Your task to perform on an android device: all mails in gmail Image 0: 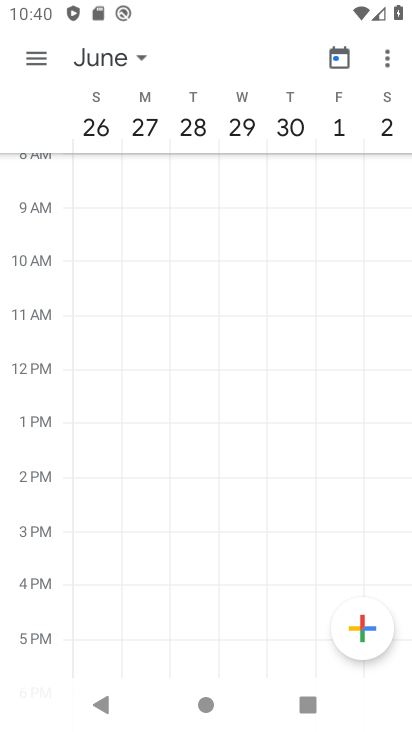
Step 0: press home button
Your task to perform on an android device: all mails in gmail Image 1: 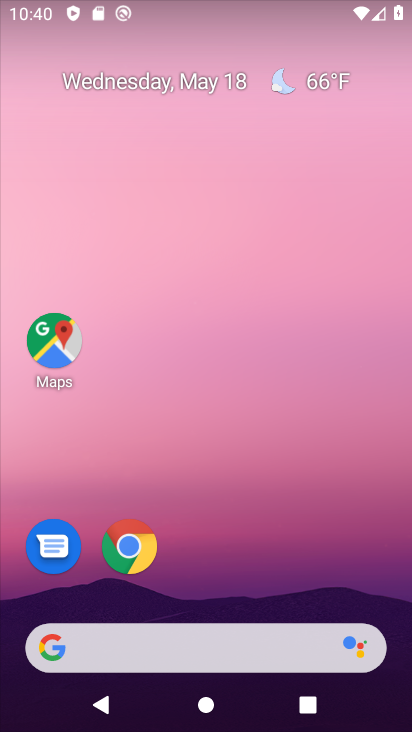
Step 1: drag from (234, 727) to (234, 107)
Your task to perform on an android device: all mails in gmail Image 2: 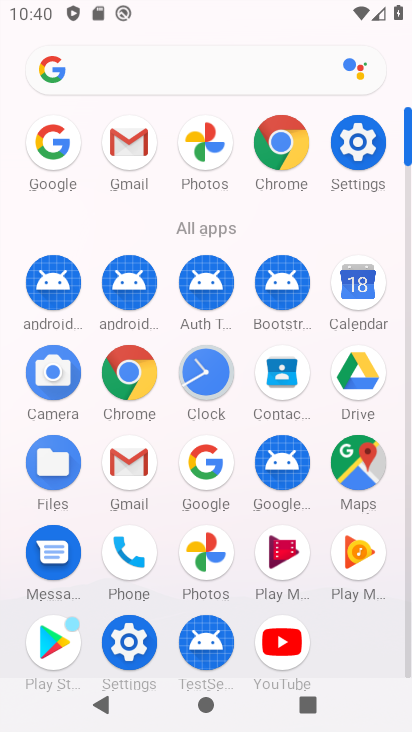
Step 2: click (136, 457)
Your task to perform on an android device: all mails in gmail Image 3: 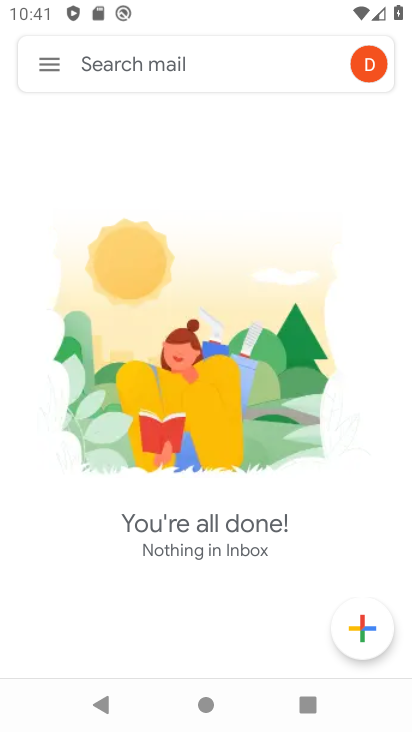
Step 3: click (43, 68)
Your task to perform on an android device: all mails in gmail Image 4: 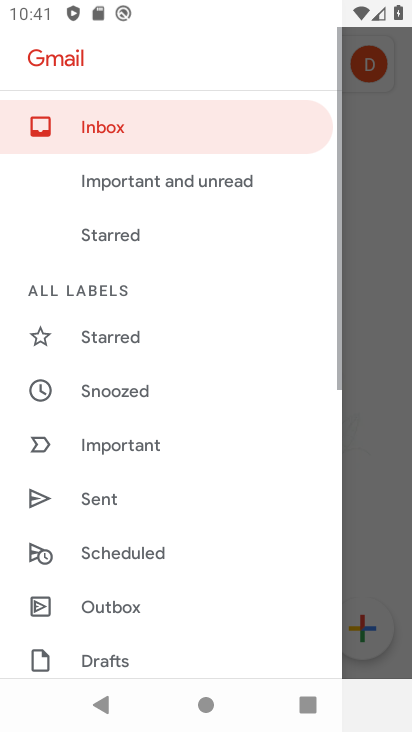
Step 4: click (147, 141)
Your task to perform on an android device: all mails in gmail Image 5: 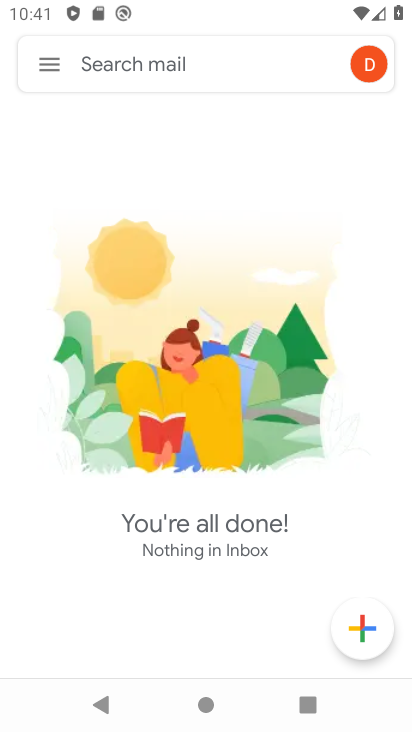
Step 5: click (48, 70)
Your task to perform on an android device: all mails in gmail Image 6: 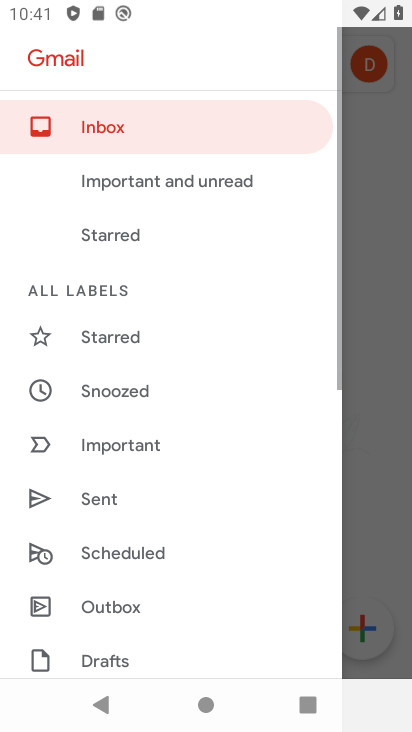
Step 6: drag from (143, 618) to (152, 224)
Your task to perform on an android device: all mails in gmail Image 7: 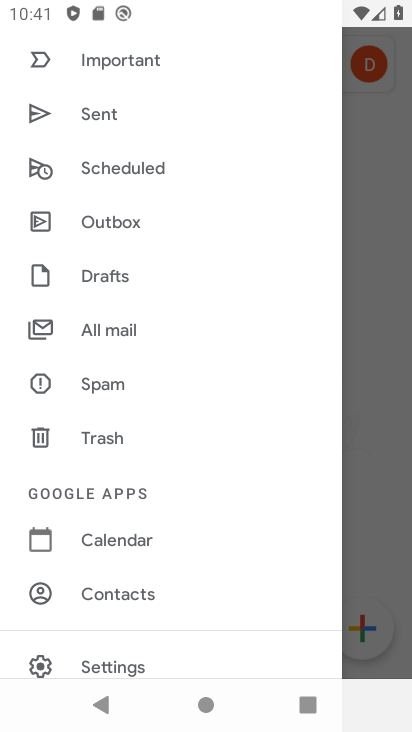
Step 7: click (116, 325)
Your task to perform on an android device: all mails in gmail Image 8: 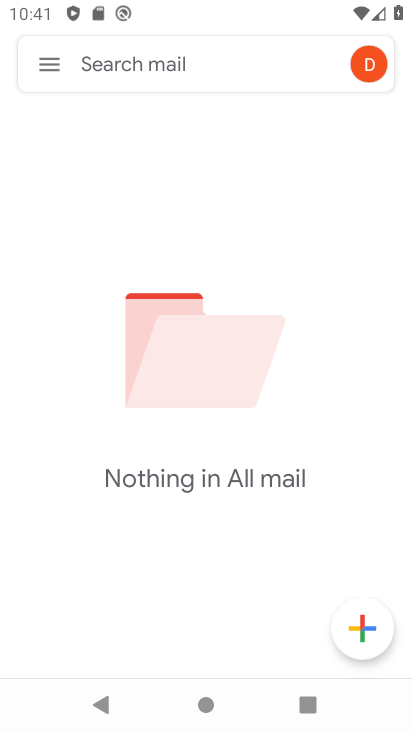
Step 8: task complete